Your task to perform on an android device: toggle pop-ups in chrome Image 0: 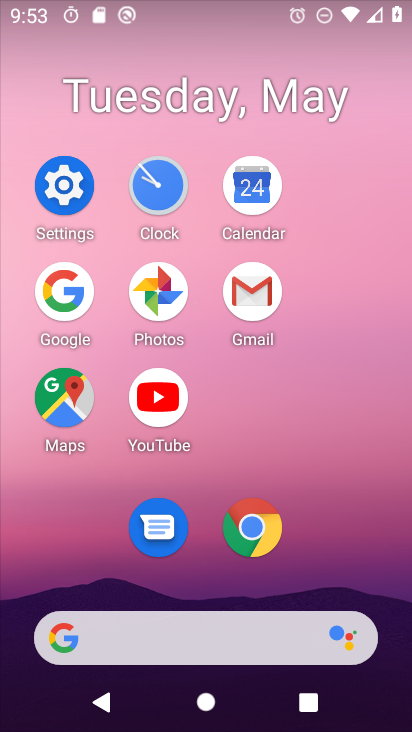
Step 0: click (282, 522)
Your task to perform on an android device: toggle pop-ups in chrome Image 1: 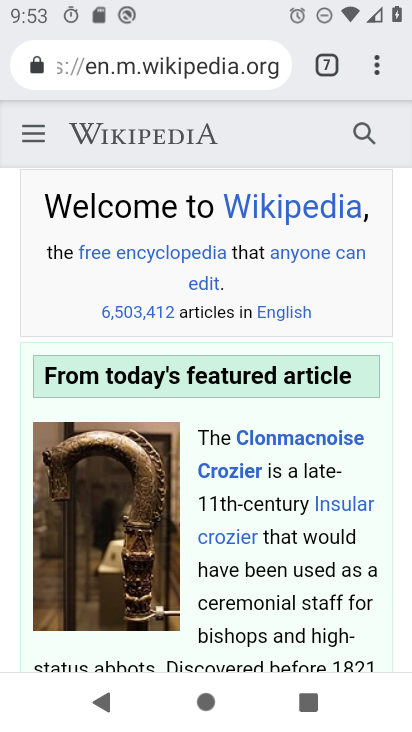
Step 1: click (380, 83)
Your task to perform on an android device: toggle pop-ups in chrome Image 2: 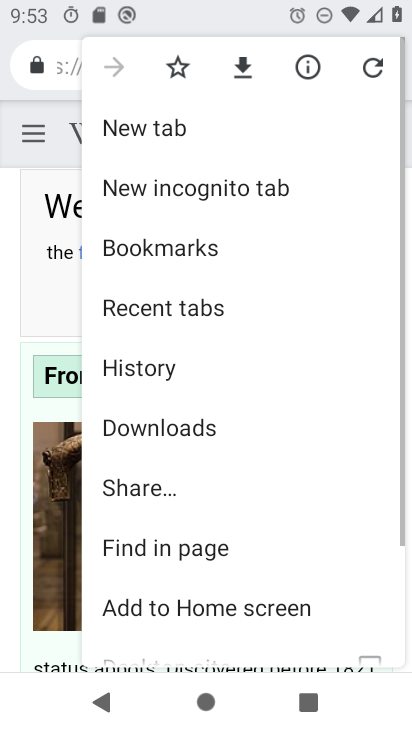
Step 2: drag from (256, 543) to (305, 180)
Your task to perform on an android device: toggle pop-ups in chrome Image 3: 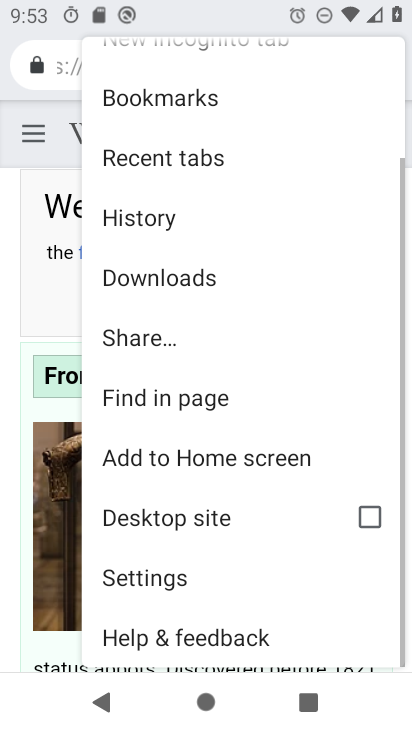
Step 3: click (158, 585)
Your task to perform on an android device: toggle pop-ups in chrome Image 4: 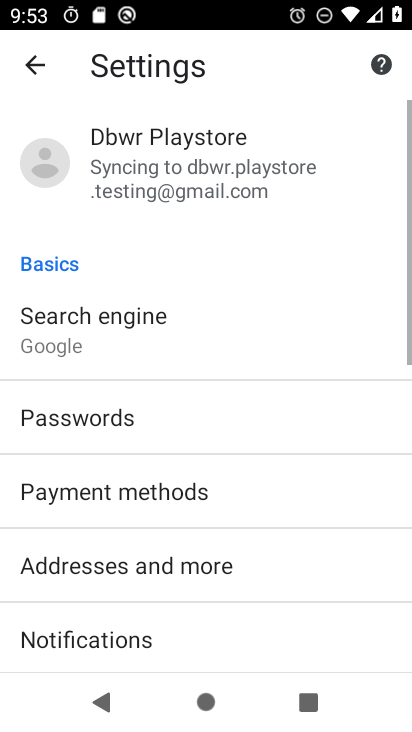
Step 4: drag from (237, 558) to (326, 157)
Your task to perform on an android device: toggle pop-ups in chrome Image 5: 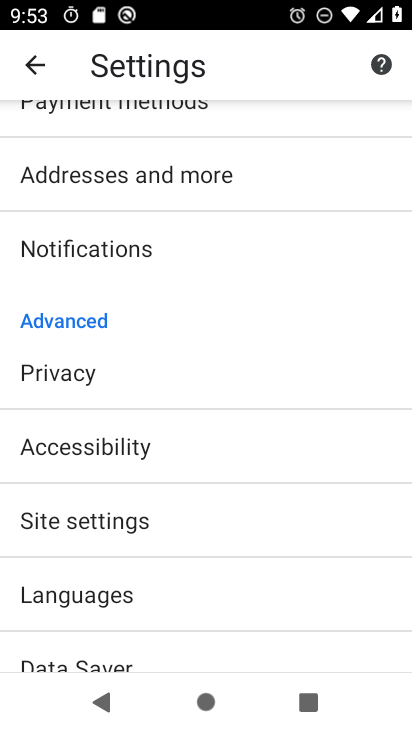
Step 5: click (218, 516)
Your task to perform on an android device: toggle pop-ups in chrome Image 6: 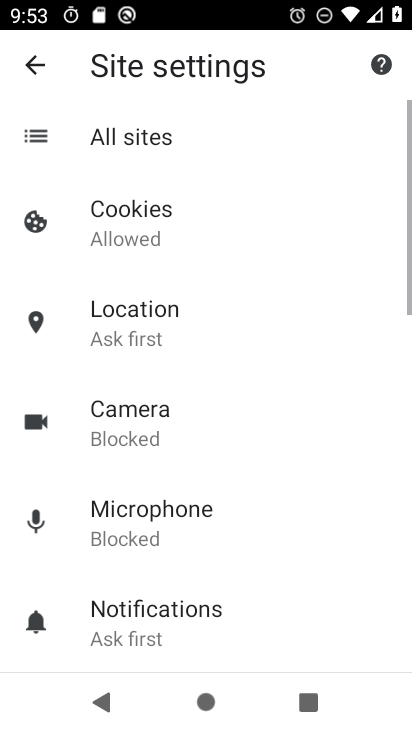
Step 6: drag from (218, 516) to (227, 141)
Your task to perform on an android device: toggle pop-ups in chrome Image 7: 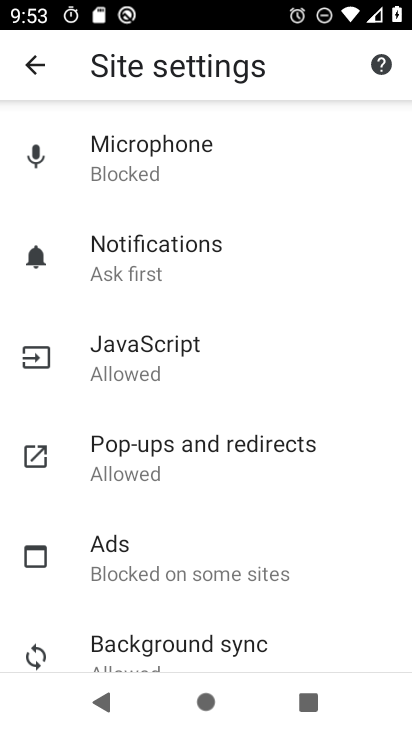
Step 7: drag from (214, 532) to (284, 248)
Your task to perform on an android device: toggle pop-ups in chrome Image 8: 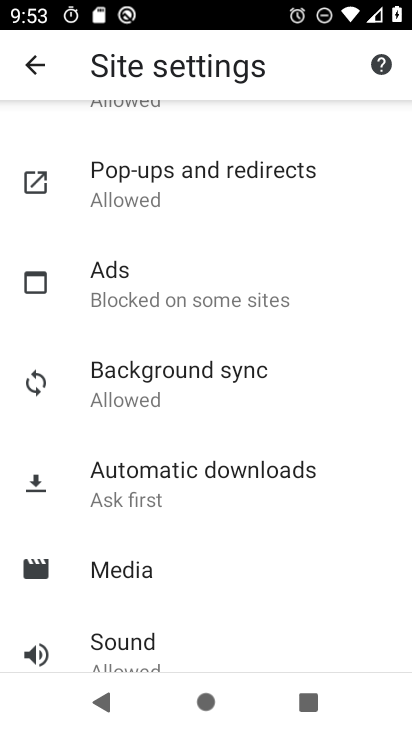
Step 8: drag from (213, 531) to (268, 187)
Your task to perform on an android device: toggle pop-ups in chrome Image 9: 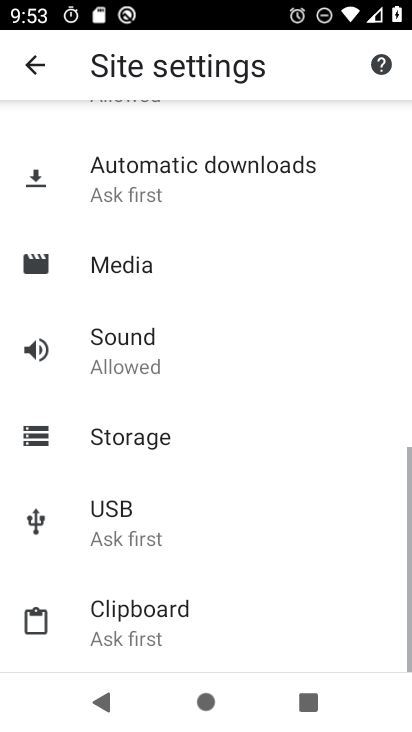
Step 9: drag from (268, 175) to (226, 513)
Your task to perform on an android device: toggle pop-ups in chrome Image 10: 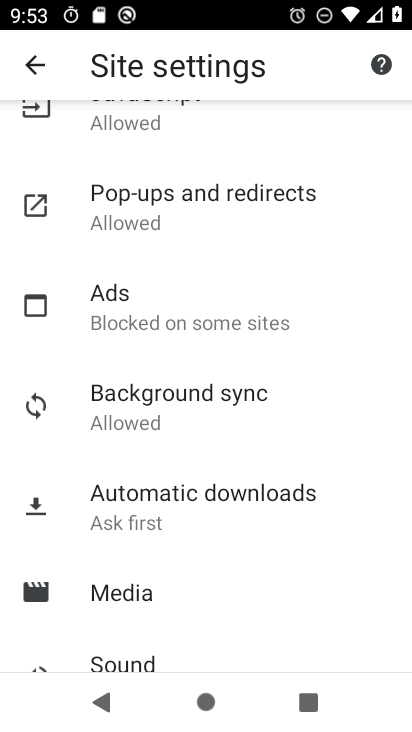
Step 10: click (159, 217)
Your task to perform on an android device: toggle pop-ups in chrome Image 11: 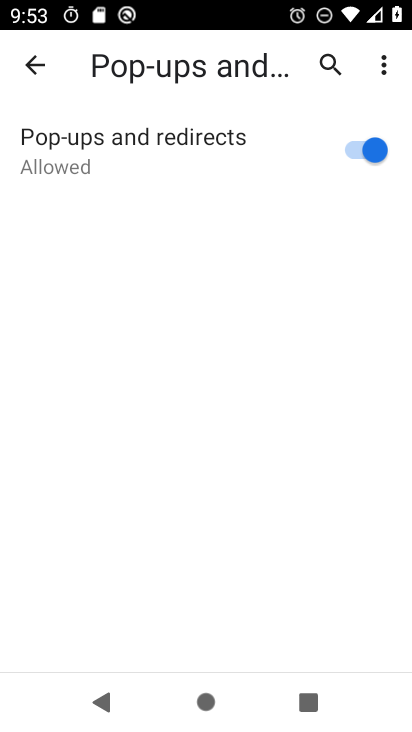
Step 11: task complete